Your task to perform on an android device: turn on data saver in the chrome app Image 0: 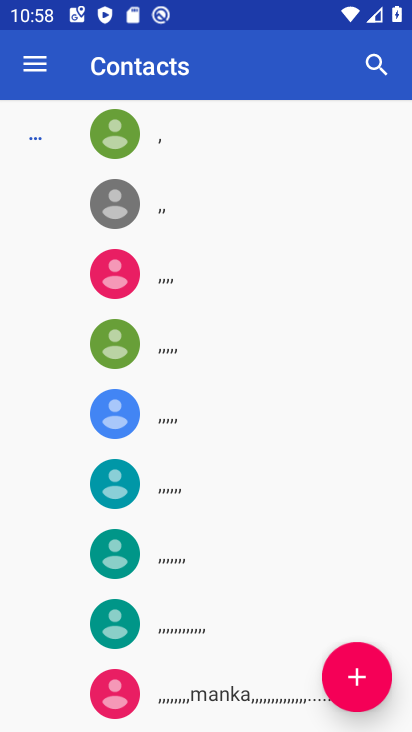
Step 0: press back button
Your task to perform on an android device: turn on data saver in the chrome app Image 1: 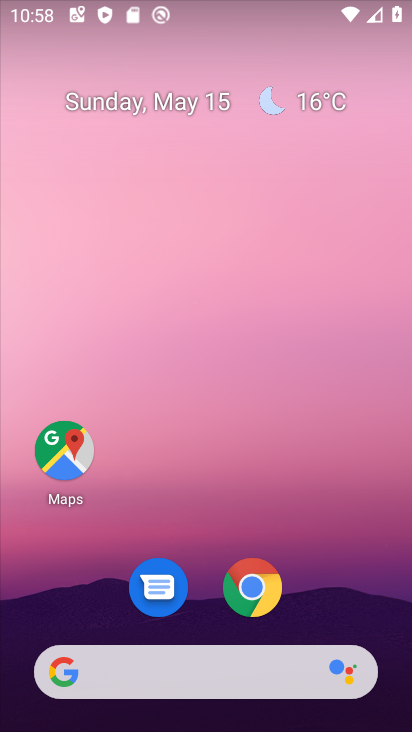
Step 1: drag from (300, 552) to (265, 18)
Your task to perform on an android device: turn on data saver in the chrome app Image 2: 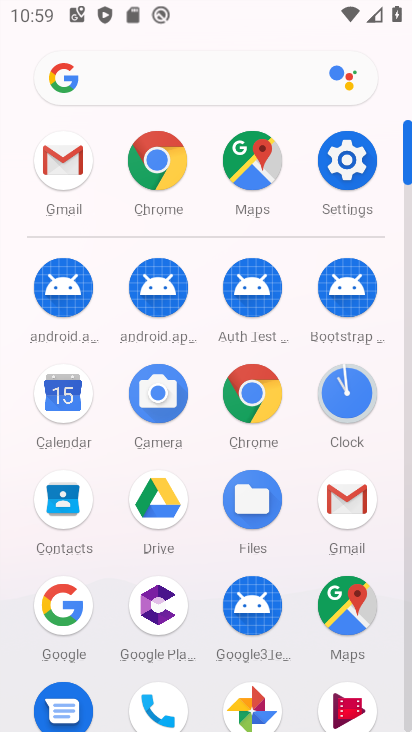
Step 2: click (157, 157)
Your task to perform on an android device: turn on data saver in the chrome app Image 3: 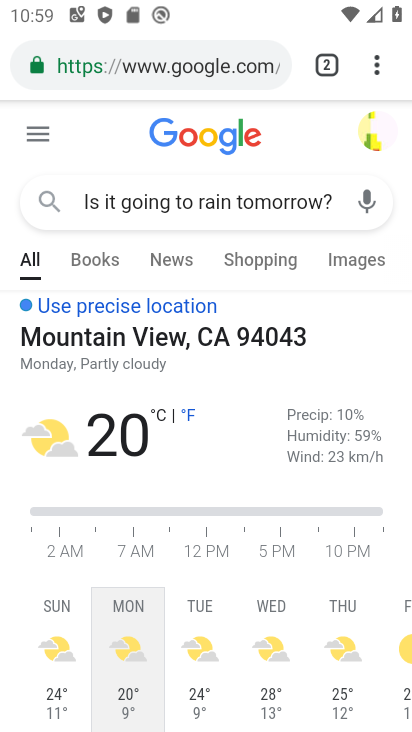
Step 3: drag from (380, 63) to (164, 628)
Your task to perform on an android device: turn on data saver in the chrome app Image 4: 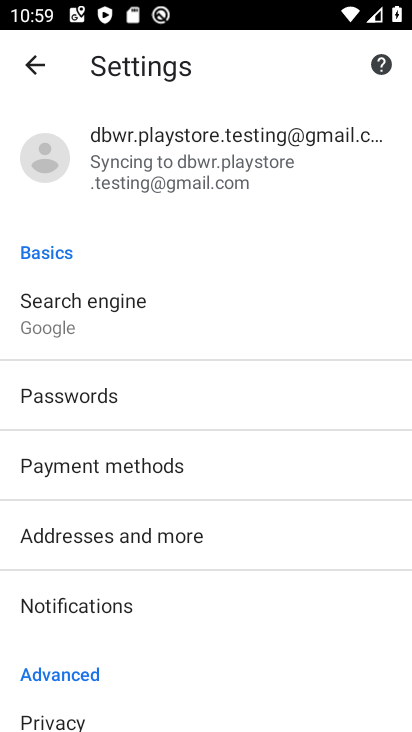
Step 4: drag from (164, 628) to (237, 111)
Your task to perform on an android device: turn on data saver in the chrome app Image 5: 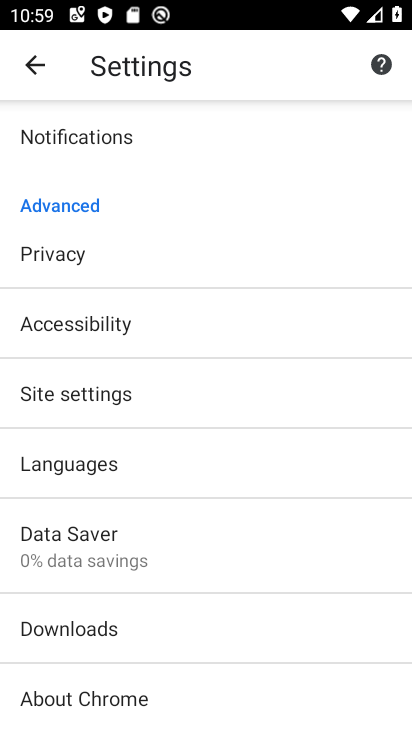
Step 5: click (172, 551)
Your task to perform on an android device: turn on data saver in the chrome app Image 6: 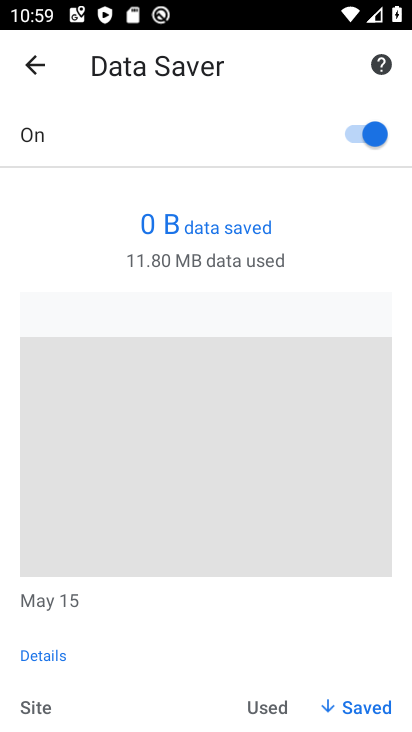
Step 6: task complete